Your task to perform on an android device: Go to Google Image 0: 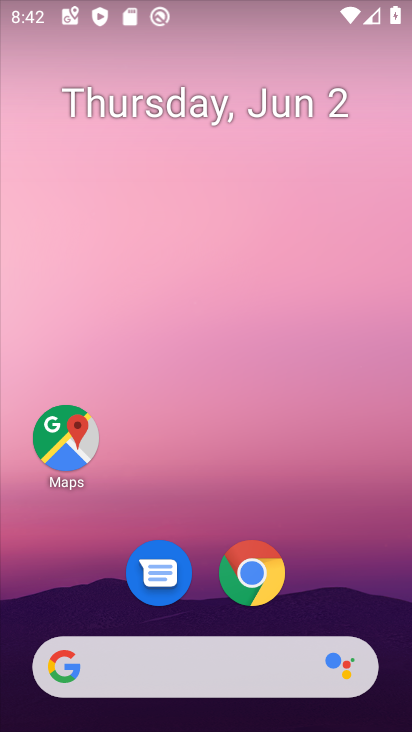
Step 0: drag from (358, 590) to (354, 51)
Your task to perform on an android device: Go to Google Image 1: 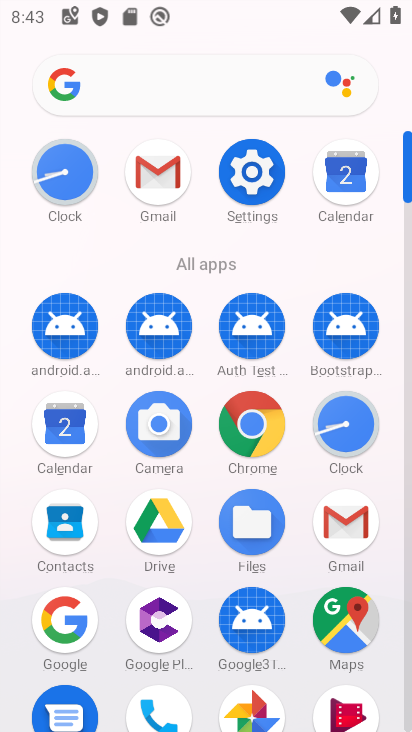
Step 1: click (62, 635)
Your task to perform on an android device: Go to Google Image 2: 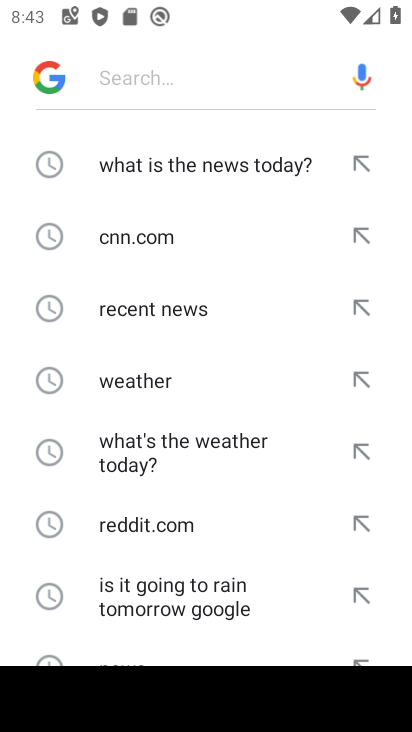
Step 2: task complete